Your task to perform on an android device: Open sound settings Image 0: 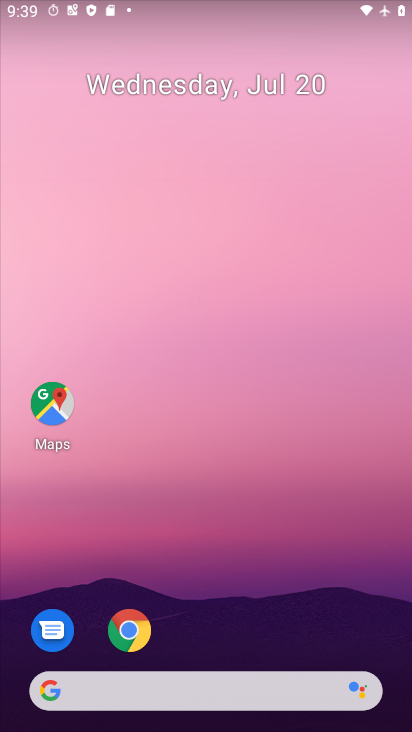
Step 0: drag from (200, 679) to (146, 205)
Your task to perform on an android device: Open sound settings Image 1: 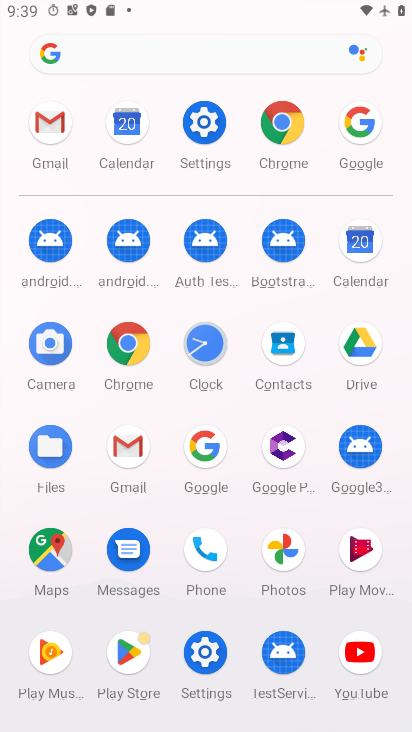
Step 1: click (193, 139)
Your task to perform on an android device: Open sound settings Image 2: 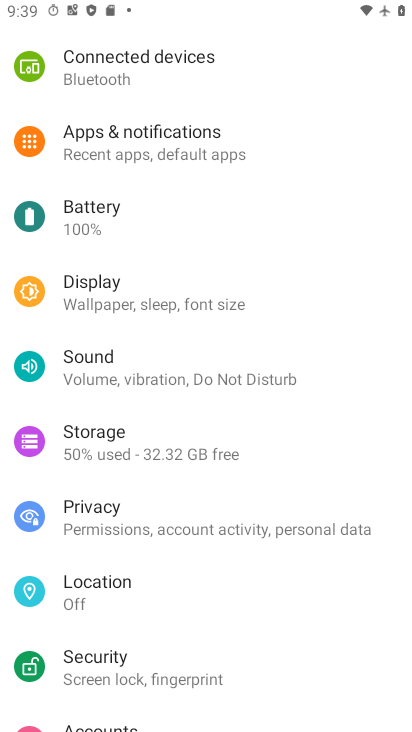
Step 2: click (133, 369)
Your task to perform on an android device: Open sound settings Image 3: 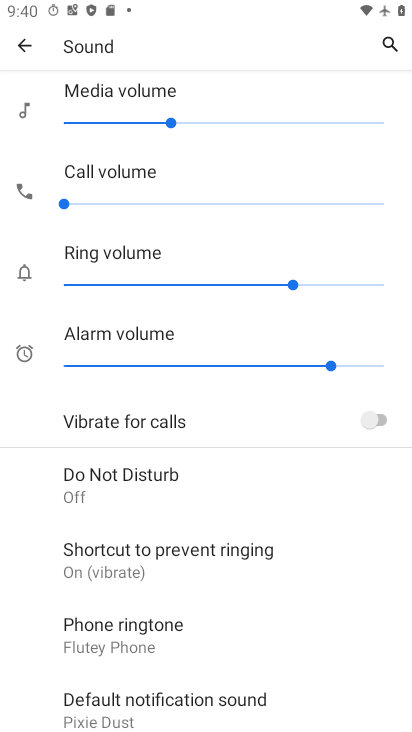
Step 3: task complete